Your task to perform on an android device: open sync settings in chrome Image 0: 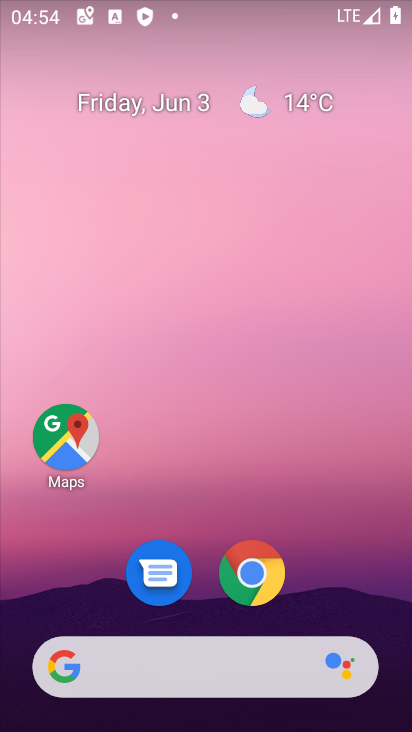
Step 0: drag from (264, 391) to (254, 318)
Your task to perform on an android device: open sync settings in chrome Image 1: 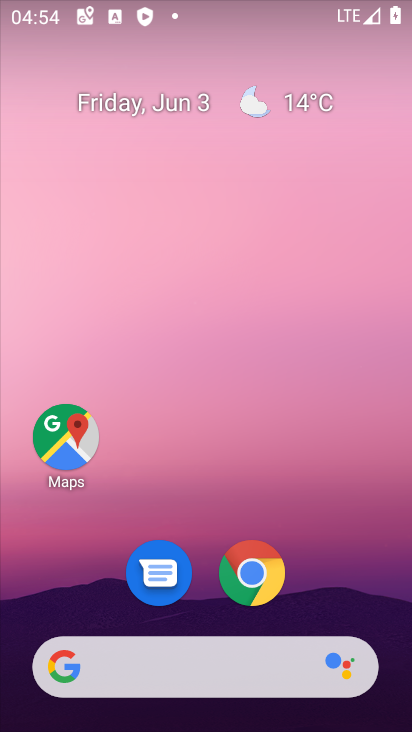
Step 1: drag from (305, 561) to (226, 82)
Your task to perform on an android device: open sync settings in chrome Image 2: 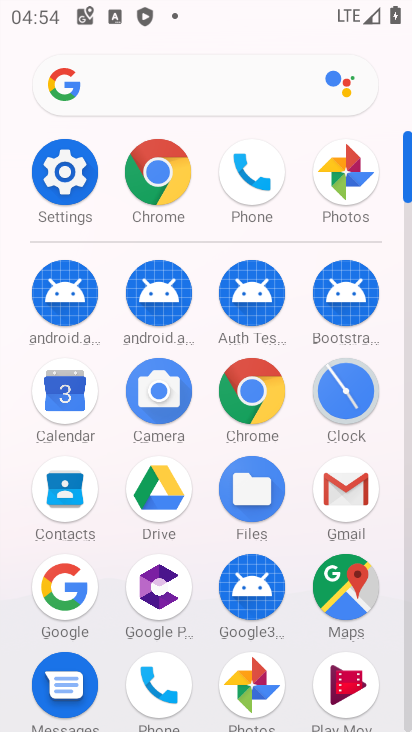
Step 2: click (155, 180)
Your task to perform on an android device: open sync settings in chrome Image 3: 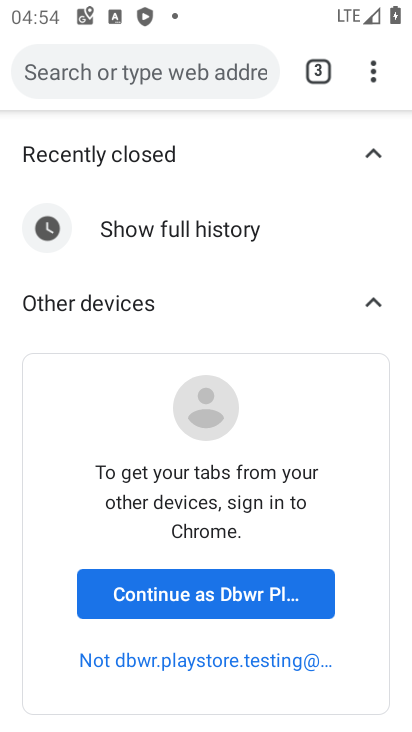
Step 3: click (375, 70)
Your task to perform on an android device: open sync settings in chrome Image 4: 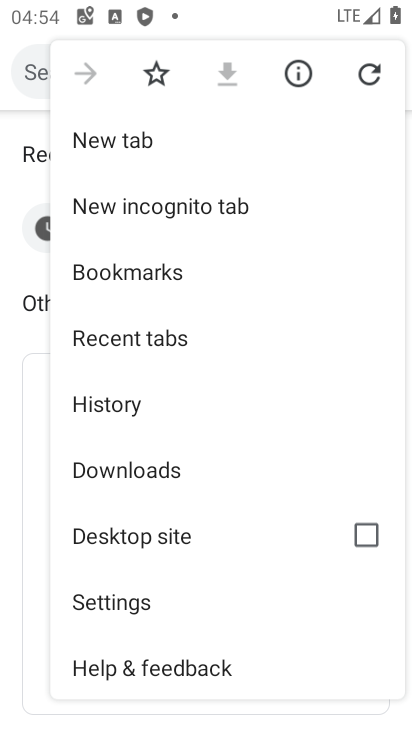
Step 4: click (151, 602)
Your task to perform on an android device: open sync settings in chrome Image 5: 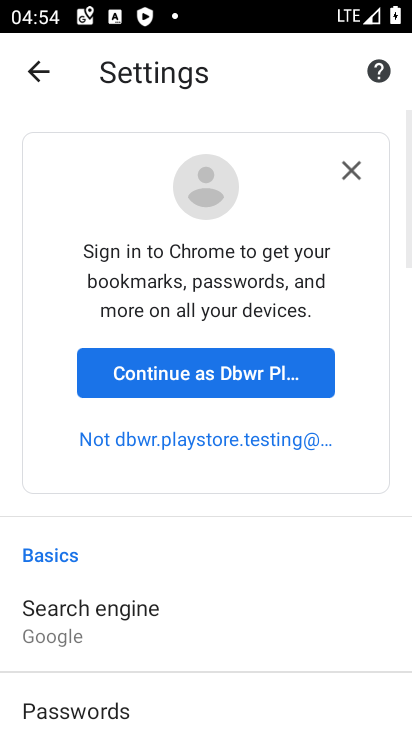
Step 5: drag from (235, 559) to (237, 203)
Your task to perform on an android device: open sync settings in chrome Image 6: 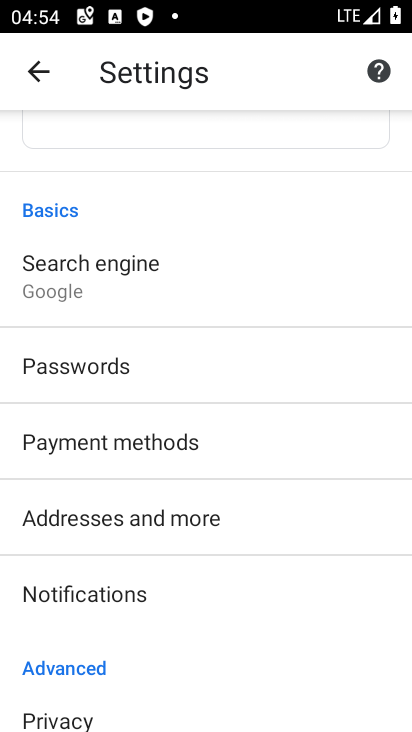
Step 6: drag from (216, 614) to (227, 236)
Your task to perform on an android device: open sync settings in chrome Image 7: 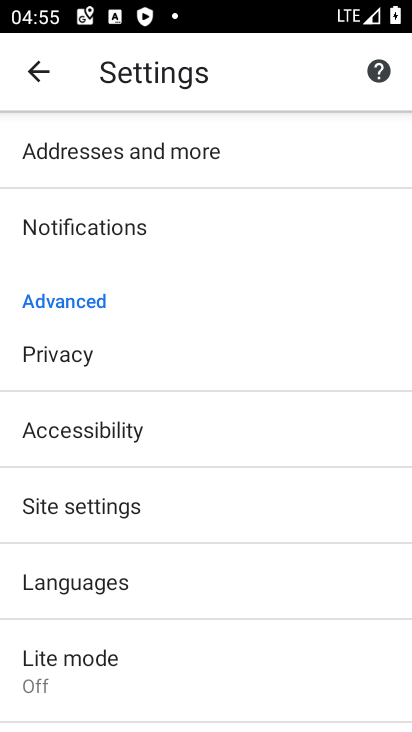
Step 7: drag from (261, 594) to (268, 326)
Your task to perform on an android device: open sync settings in chrome Image 8: 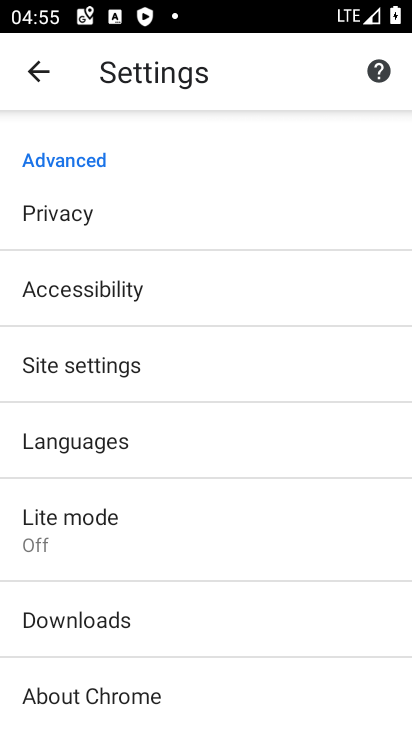
Step 8: drag from (284, 516) to (283, 255)
Your task to perform on an android device: open sync settings in chrome Image 9: 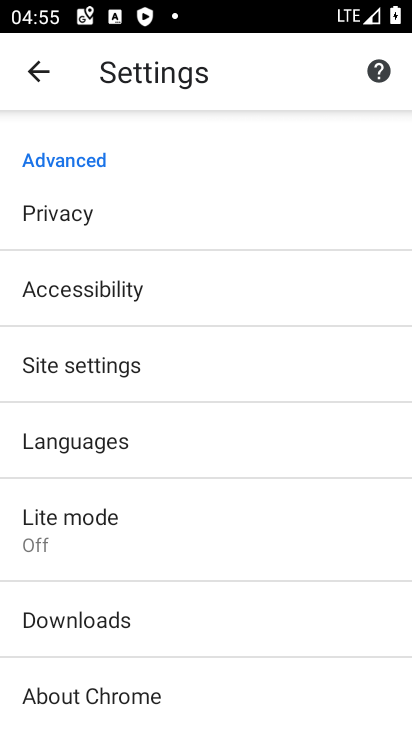
Step 9: drag from (288, 206) to (205, 606)
Your task to perform on an android device: open sync settings in chrome Image 10: 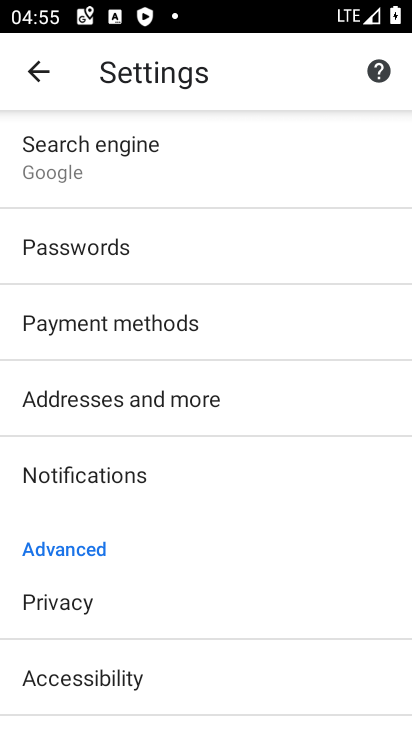
Step 10: drag from (278, 233) to (257, 612)
Your task to perform on an android device: open sync settings in chrome Image 11: 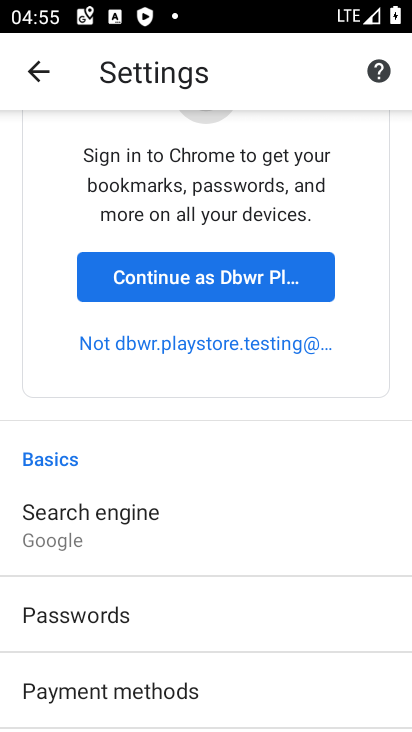
Step 11: press back button
Your task to perform on an android device: open sync settings in chrome Image 12: 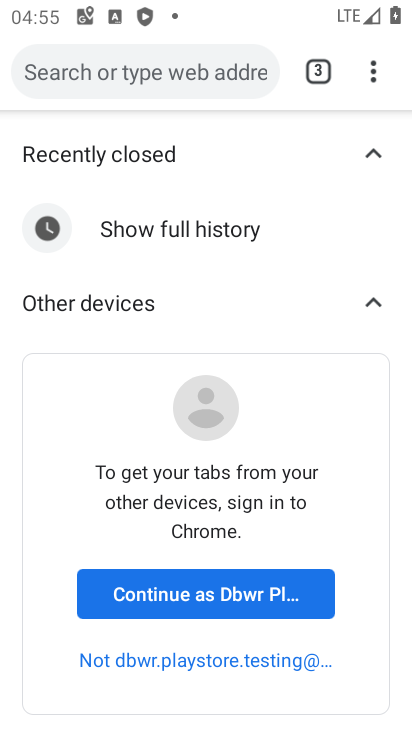
Step 12: click (373, 76)
Your task to perform on an android device: open sync settings in chrome Image 13: 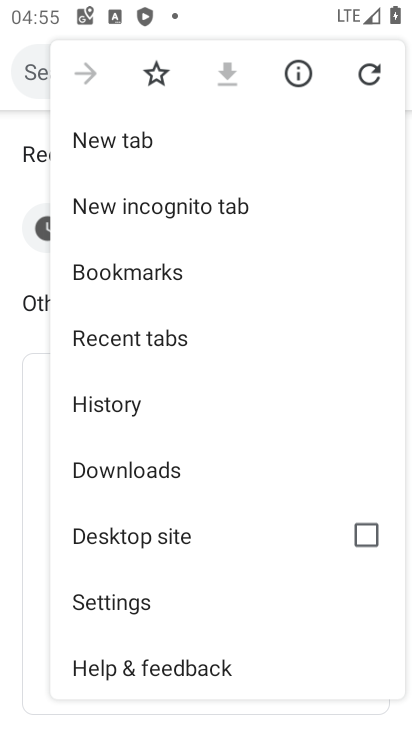
Step 13: drag from (222, 561) to (242, 219)
Your task to perform on an android device: open sync settings in chrome Image 14: 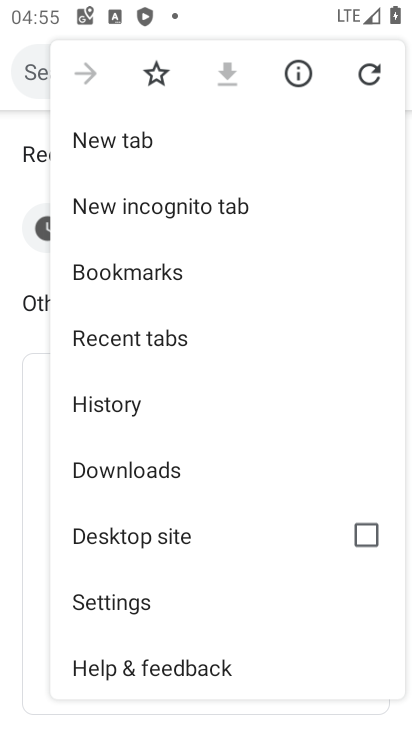
Step 14: click (131, 595)
Your task to perform on an android device: open sync settings in chrome Image 15: 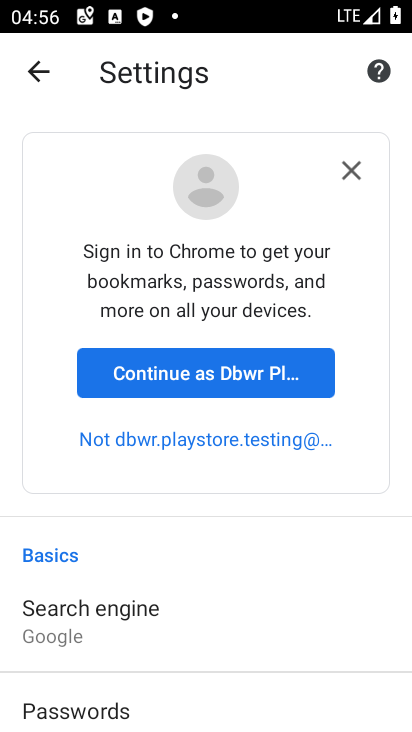
Step 15: drag from (148, 604) to (221, 65)
Your task to perform on an android device: open sync settings in chrome Image 16: 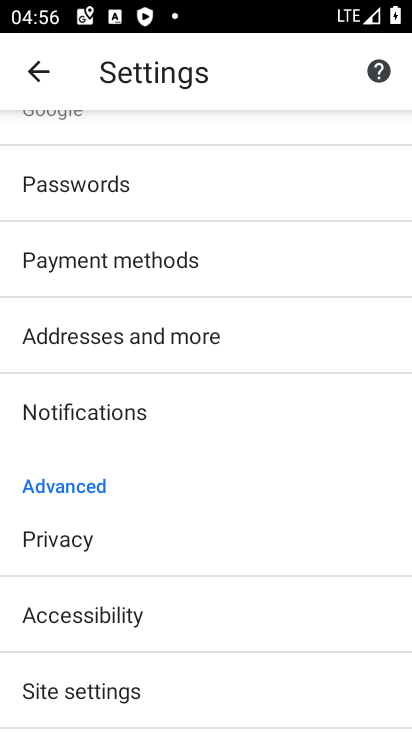
Step 16: click (88, 703)
Your task to perform on an android device: open sync settings in chrome Image 17: 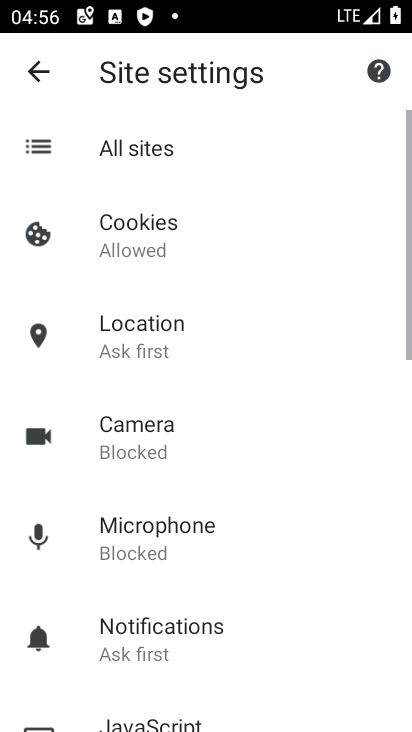
Step 17: drag from (164, 718) to (153, 200)
Your task to perform on an android device: open sync settings in chrome Image 18: 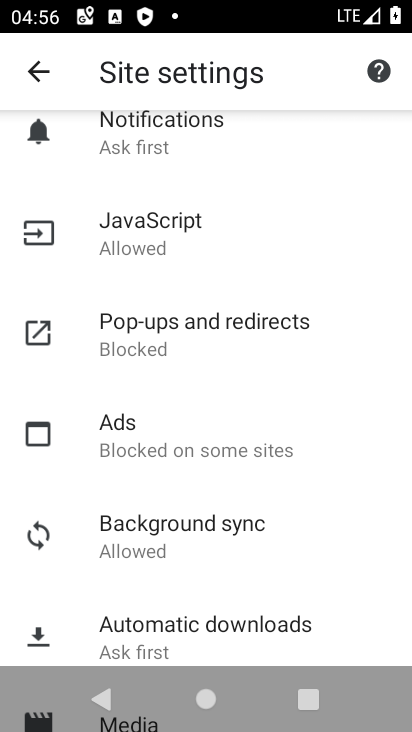
Step 18: click (181, 534)
Your task to perform on an android device: open sync settings in chrome Image 19: 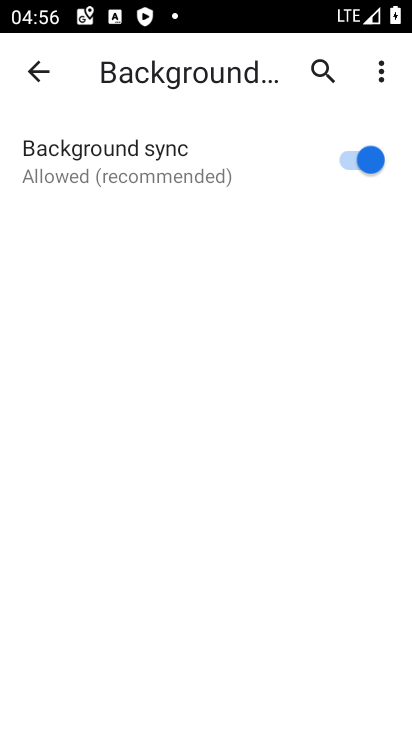
Step 19: task complete